Your task to perform on an android device: What's the weather going to be this weekend? Image 0: 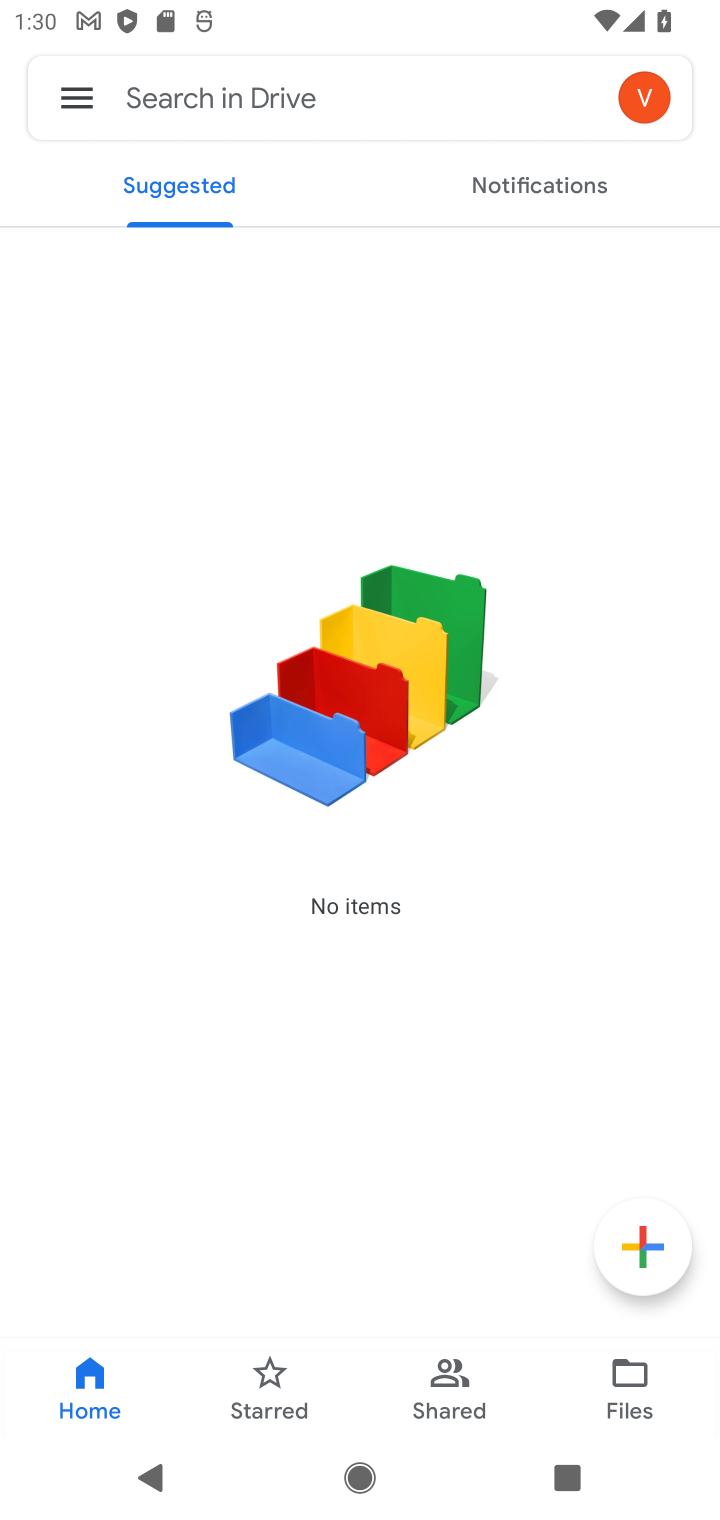
Step 0: press home button
Your task to perform on an android device: What's the weather going to be this weekend? Image 1: 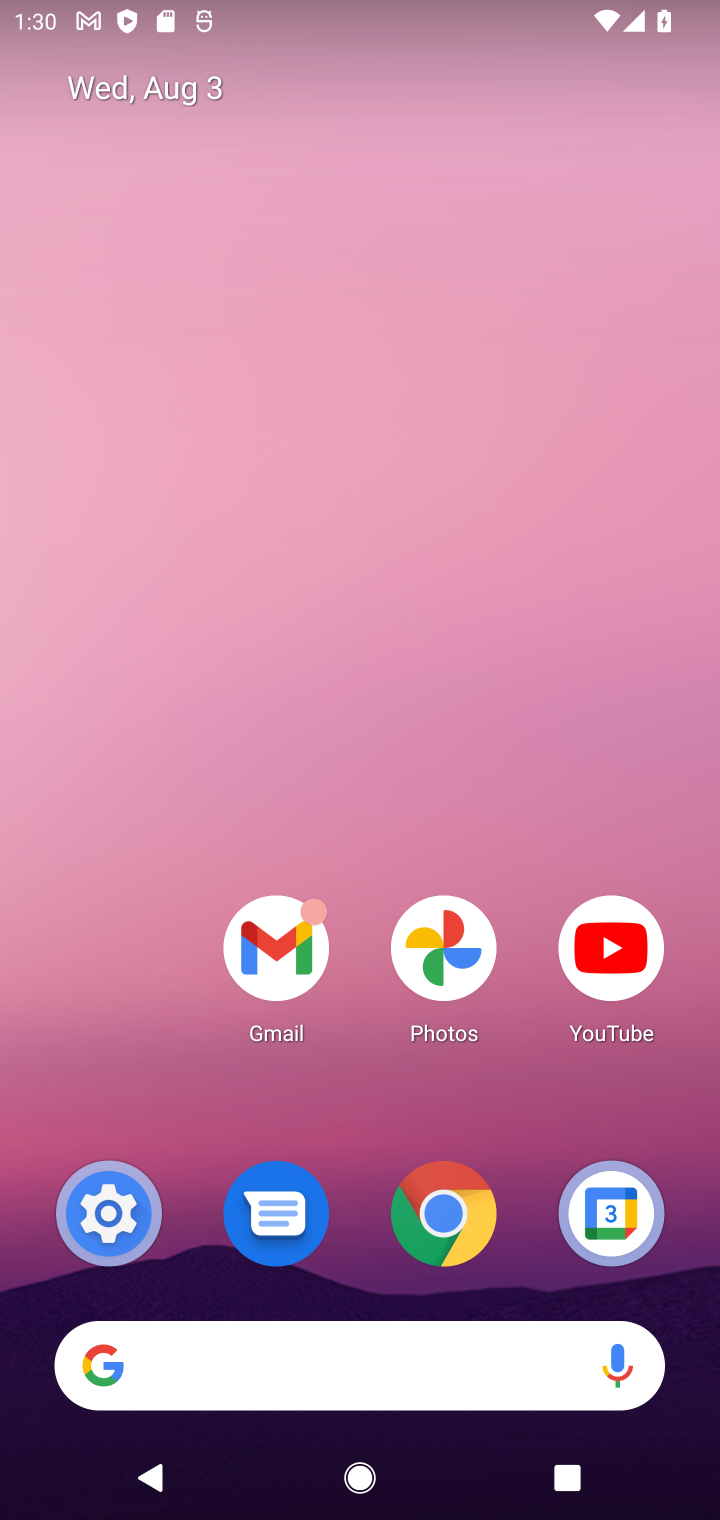
Step 1: drag from (418, 630) to (412, 0)
Your task to perform on an android device: What's the weather going to be this weekend? Image 2: 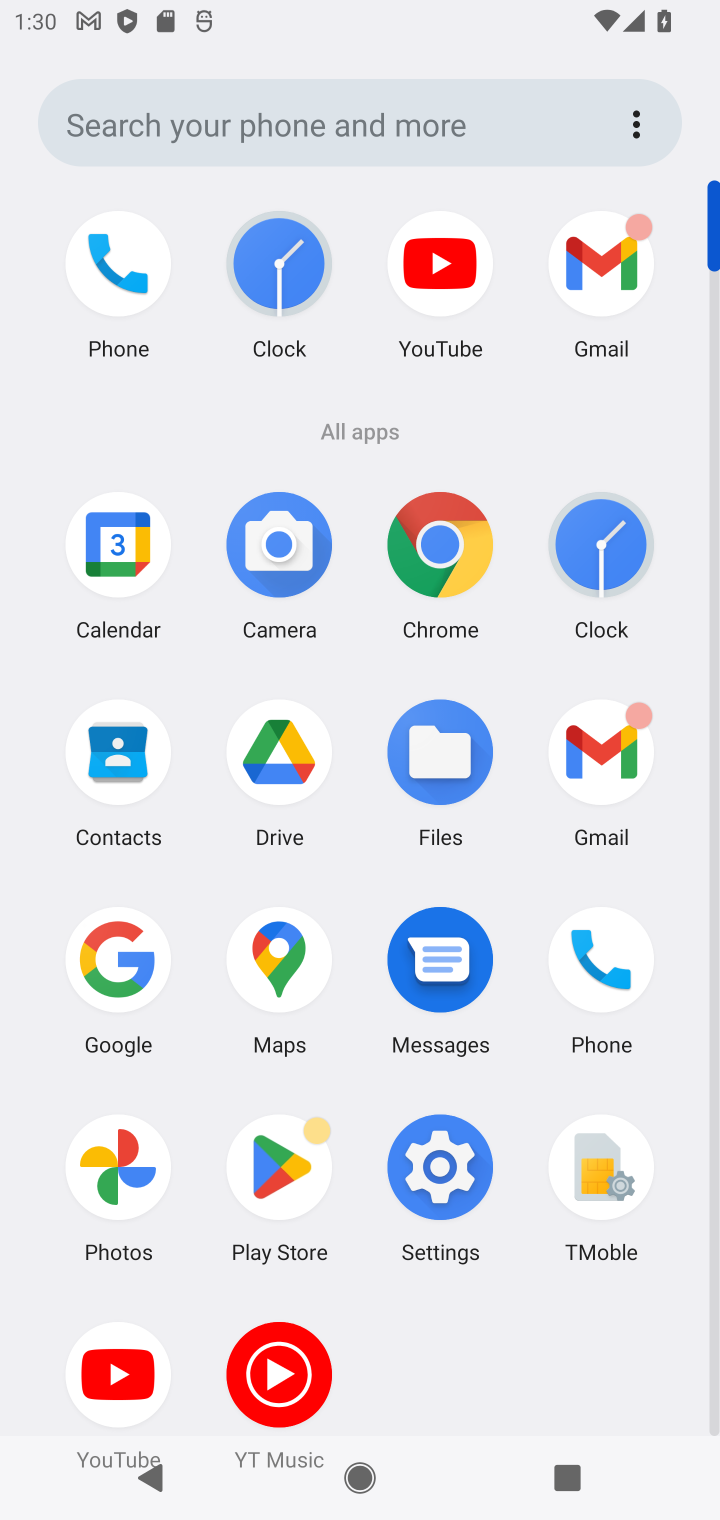
Step 2: click (134, 559)
Your task to perform on an android device: What's the weather going to be this weekend? Image 3: 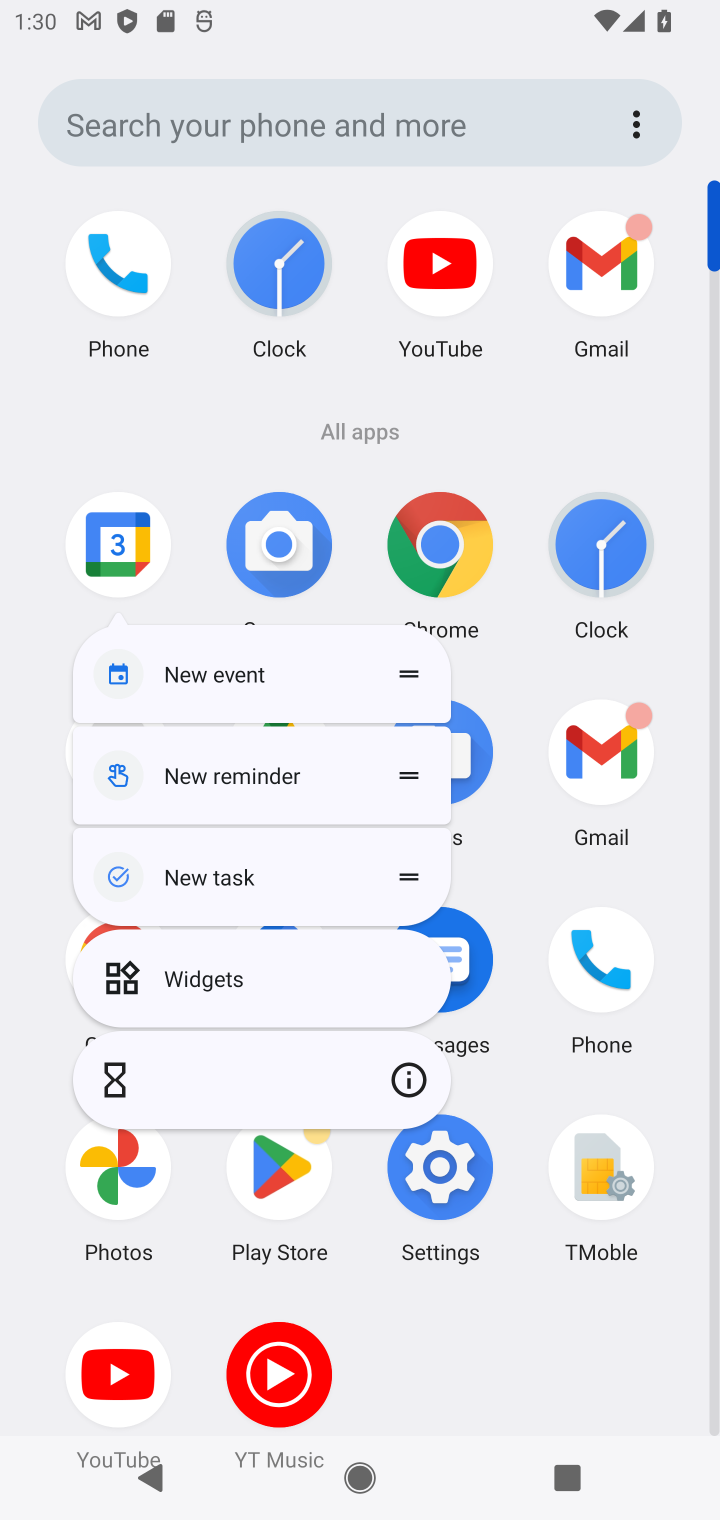
Step 3: click (134, 558)
Your task to perform on an android device: What's the weather going to be this weekend? Image 4: 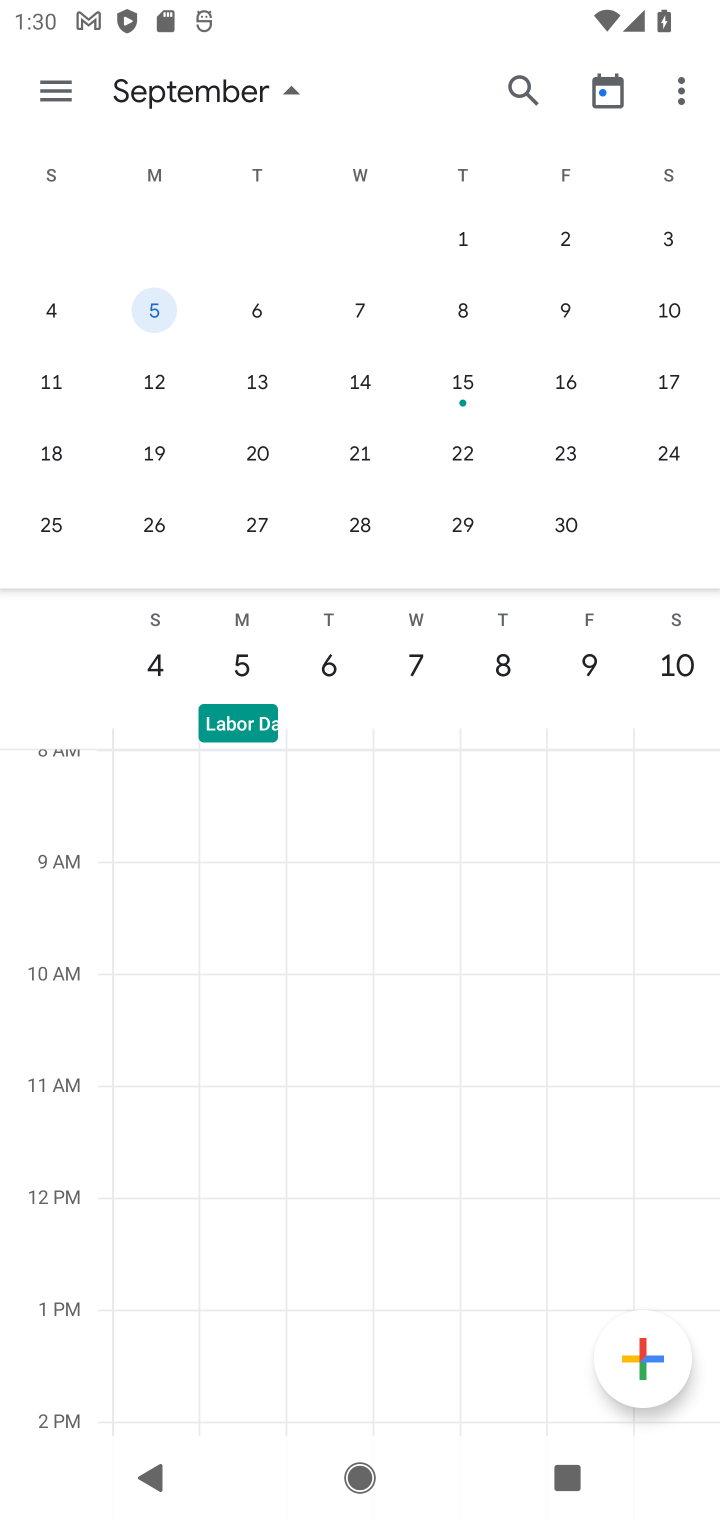
Step 4: press home button
Your task to perform on an android device: What's the weather going to be this weekend? Image 5: 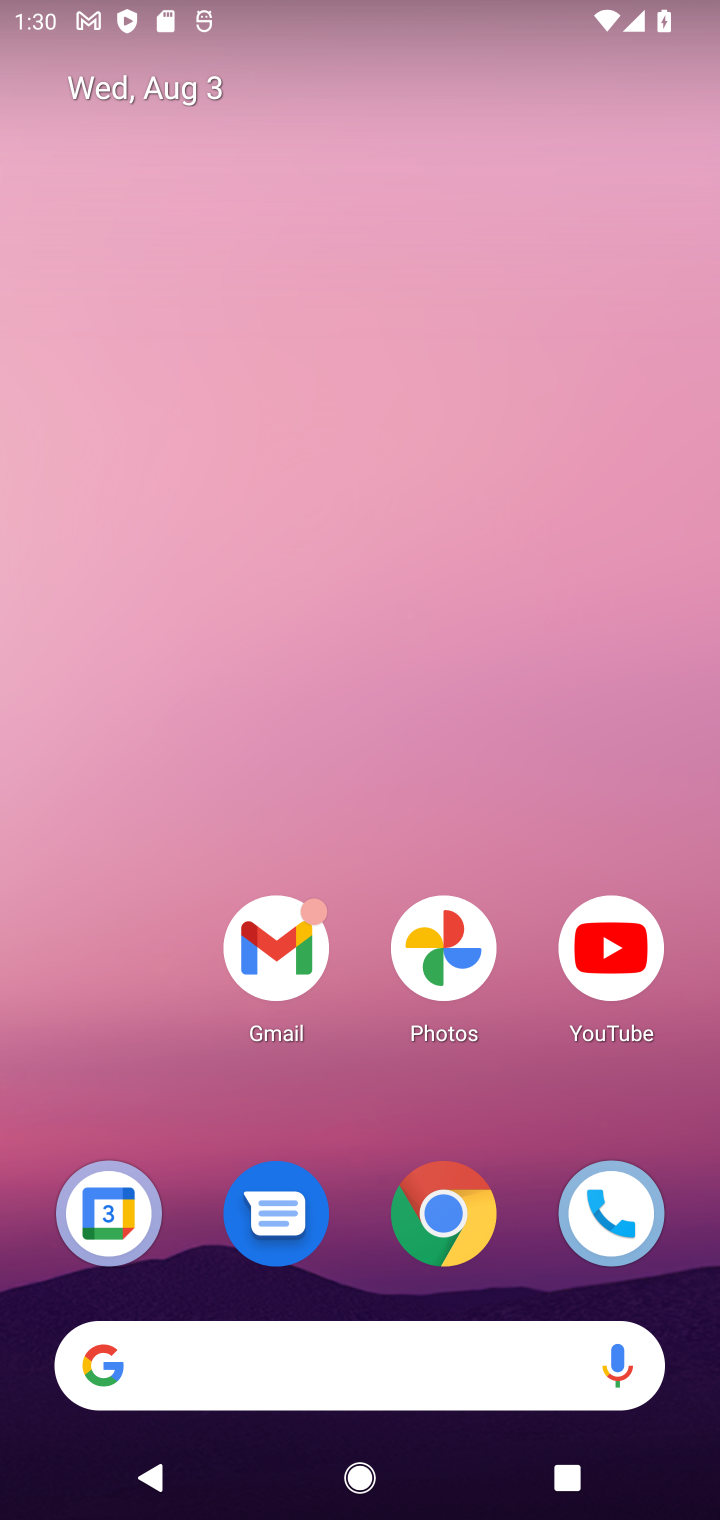
Step 5: drag from (38, 590) to (702, 538)
Your task to perform on an android device: What's the weather going to be this weekend? Image 6: 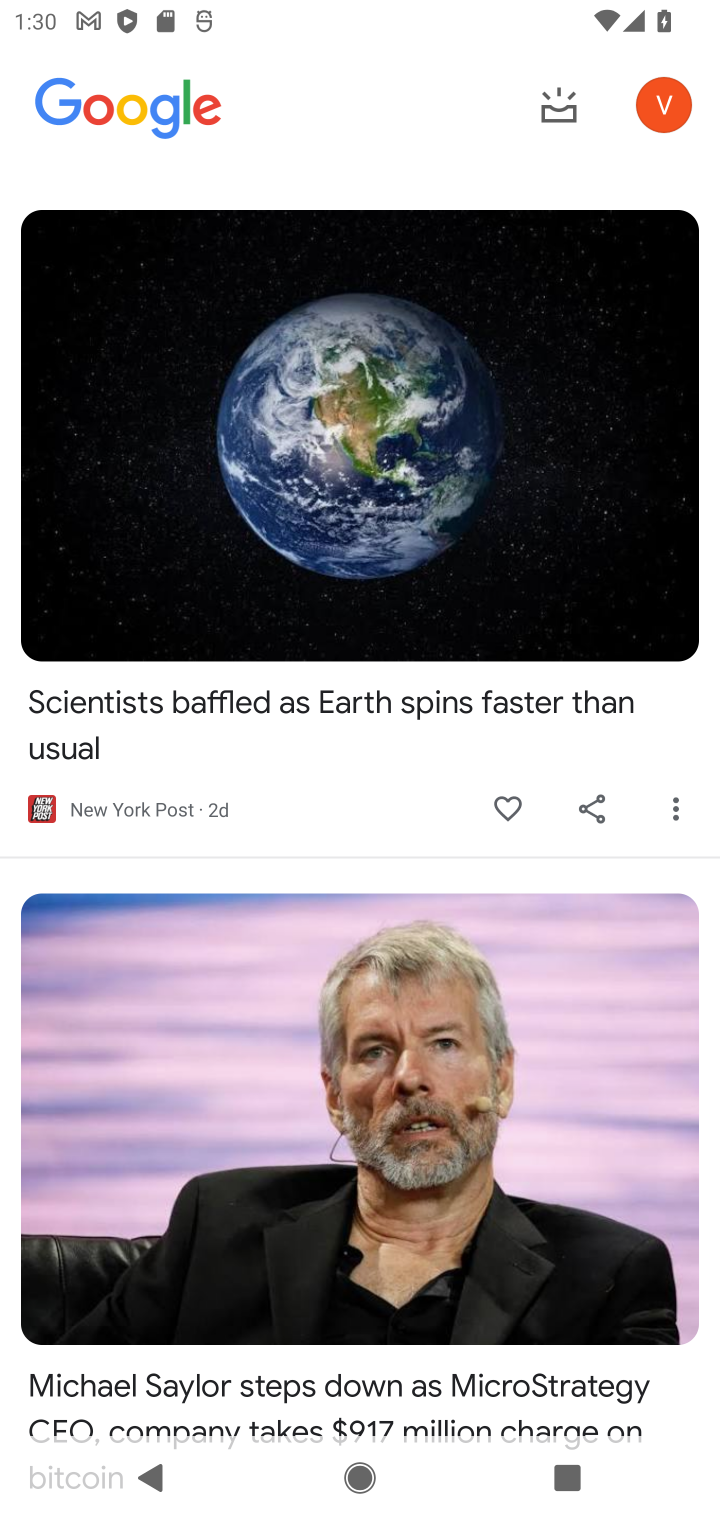
Step 6: press home button
Your task to perform on an android device: What's the weather going to be this weekend? Image 7: 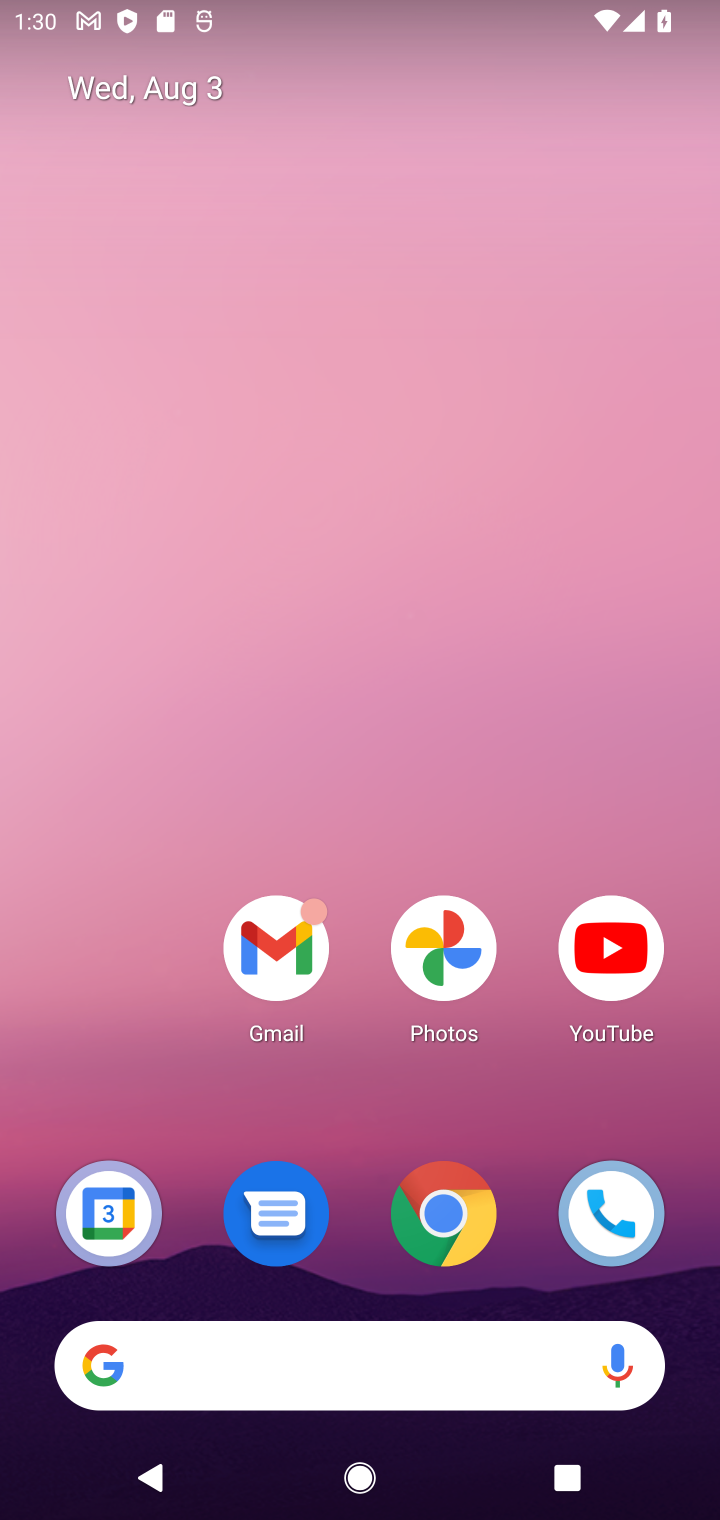
Step 7: drag from (424, 1281) to (714, 293)
Your task to perform on an android device: What's the weather going to be this weekend? Image 8: 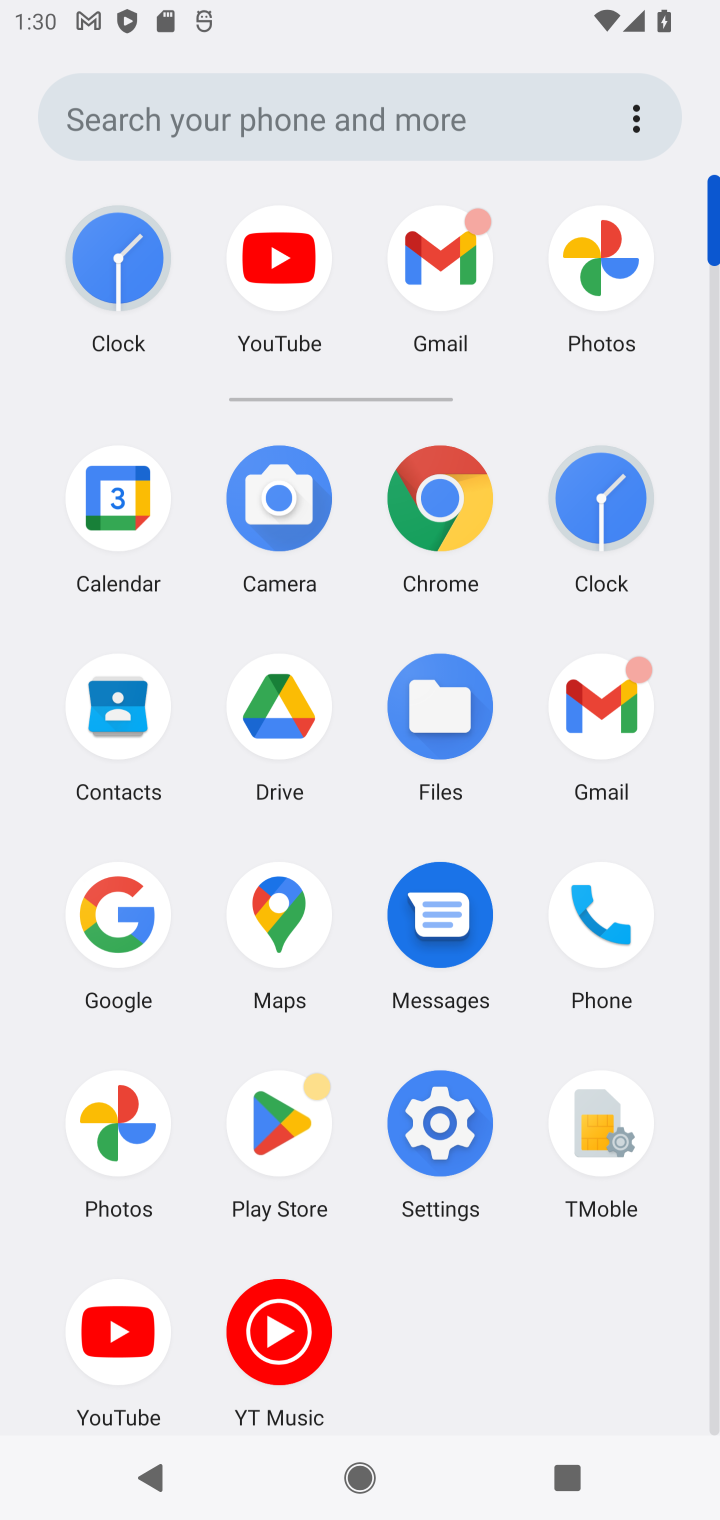
Step 8: click (451, 522)
Your task to perform on an android device: What's the weather going to be this weekend? Image 9: 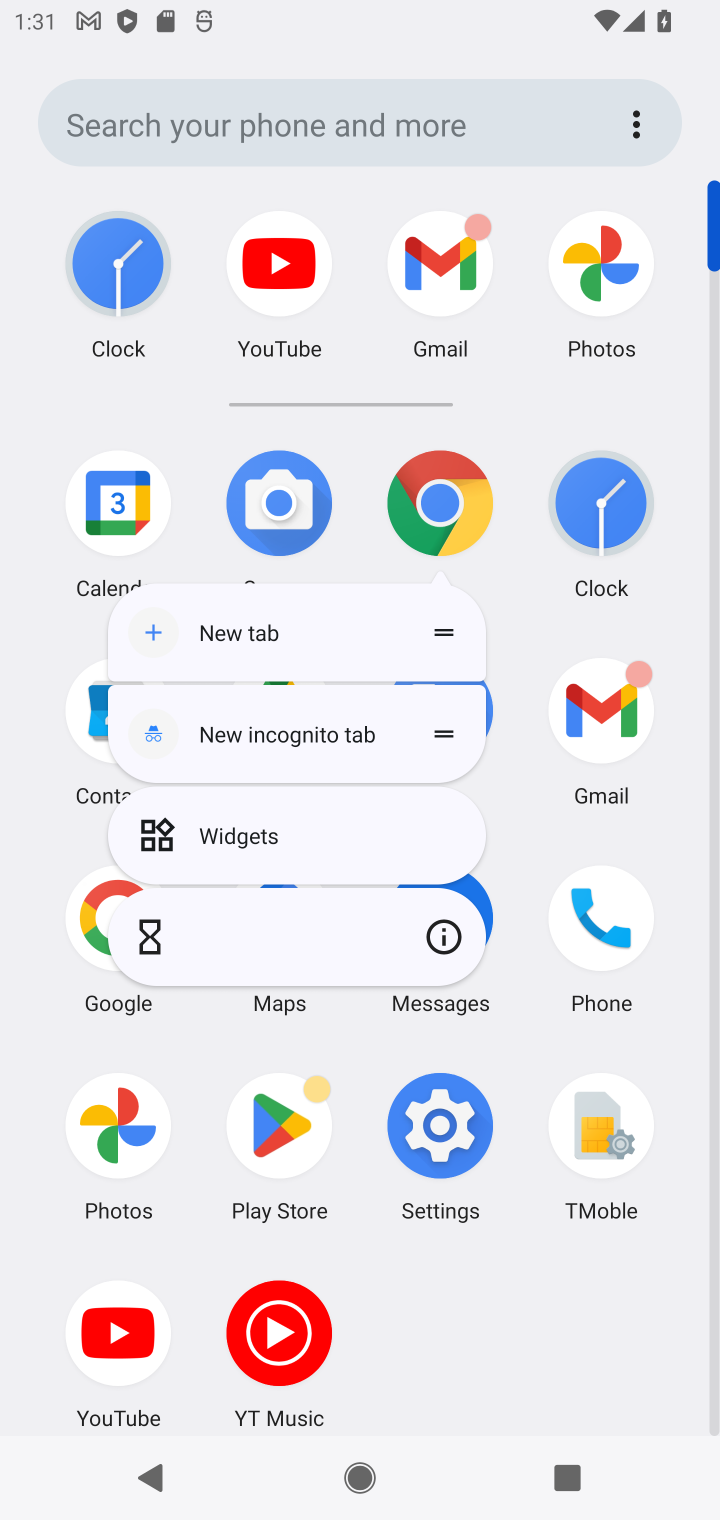
Step 9: click (451, 520)
Your task to perform on an android device: What's the weather going to be this weekend? Image 10: 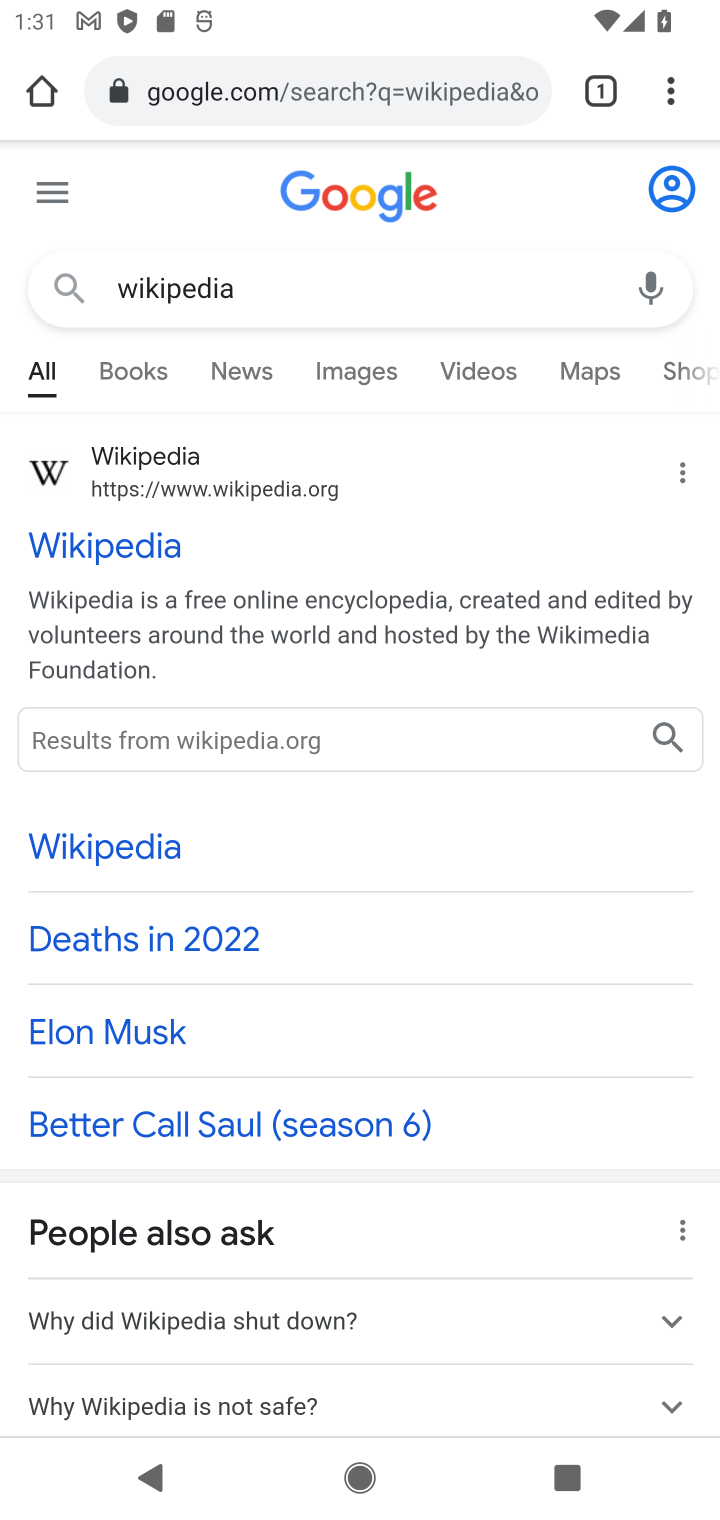
Step 10: click (406, 101)
Your task to perform on an android device: What's the weather going to be this weekend? Image 11: 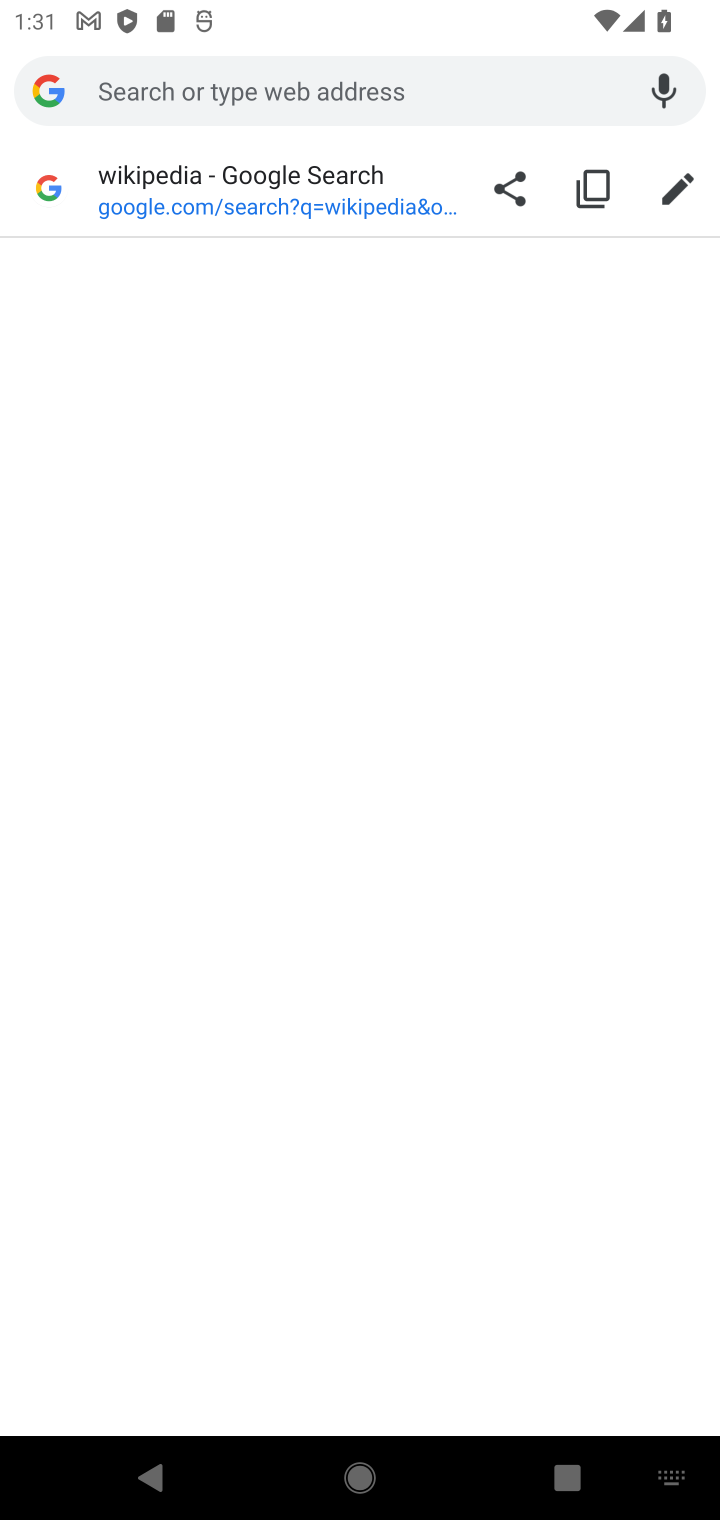
Step 11: type "weather going to be weekend"
Your task to perform on an android device: What's the weather going to be this weekend? Image 12: 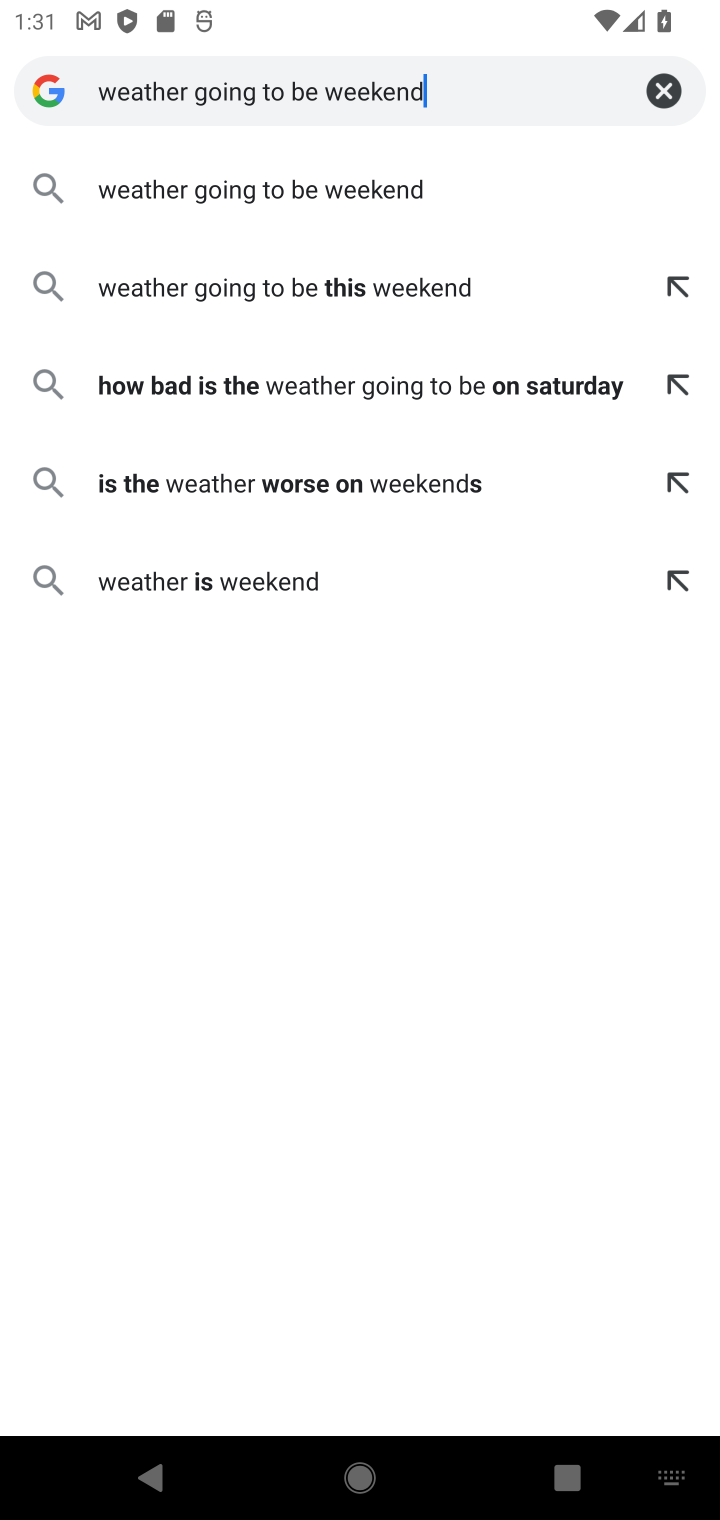
Step 12: click (390, 191)
Your task to perform on an android device: What's the weather going to be this weekend? Image 13: 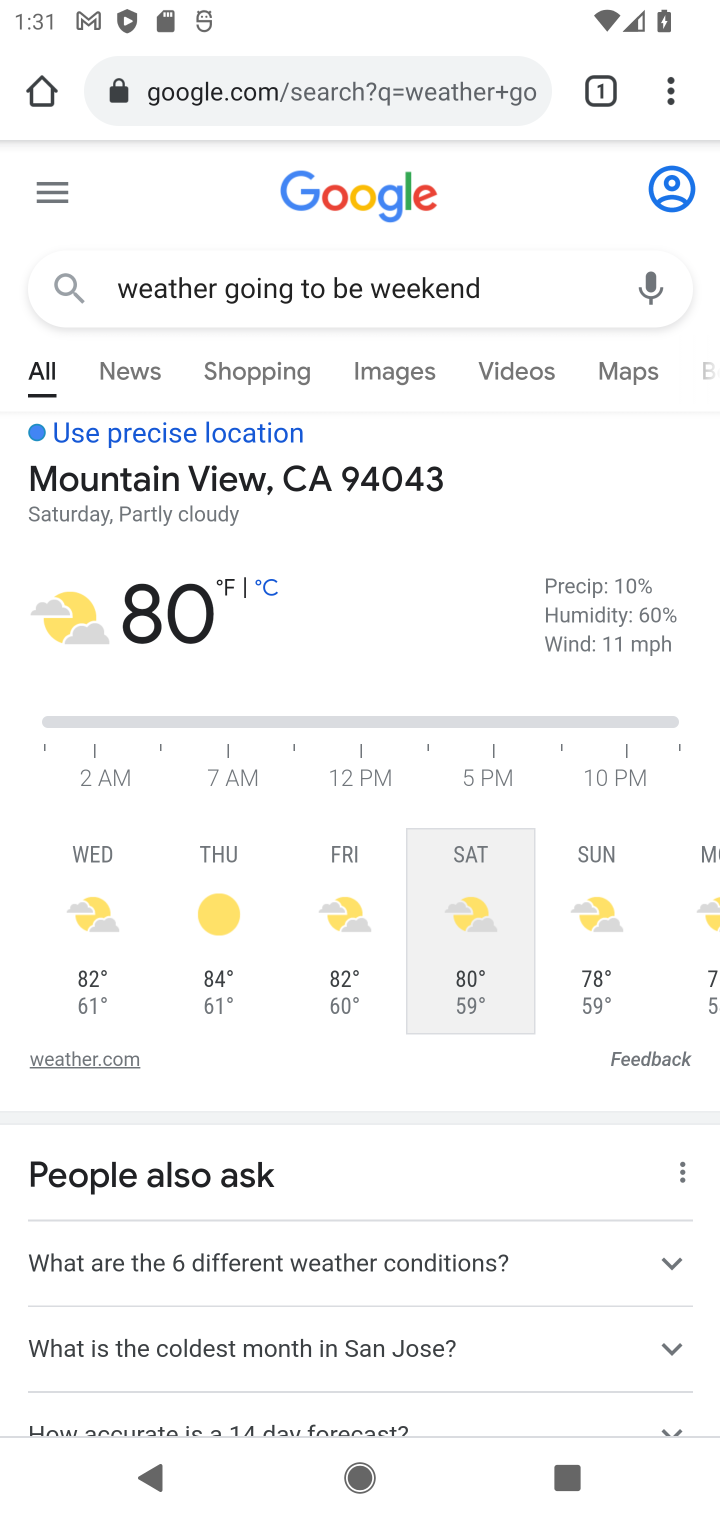
Step 13: task complete